Your task to perform on an android device: Open Android settings Image 0: 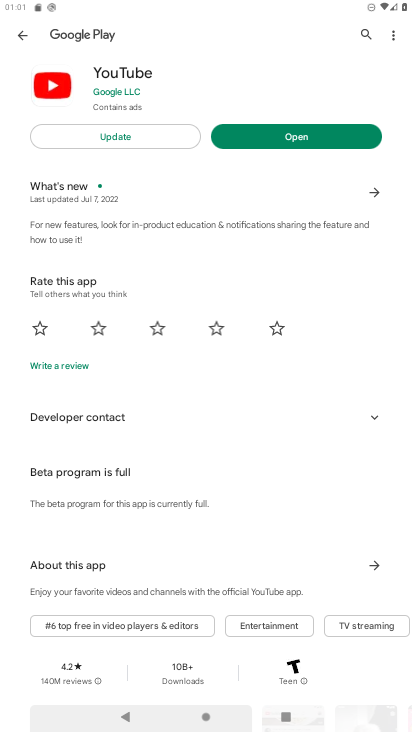
Step 0: press home button
Your task to perform on an android device: Open Android settings Image 1: 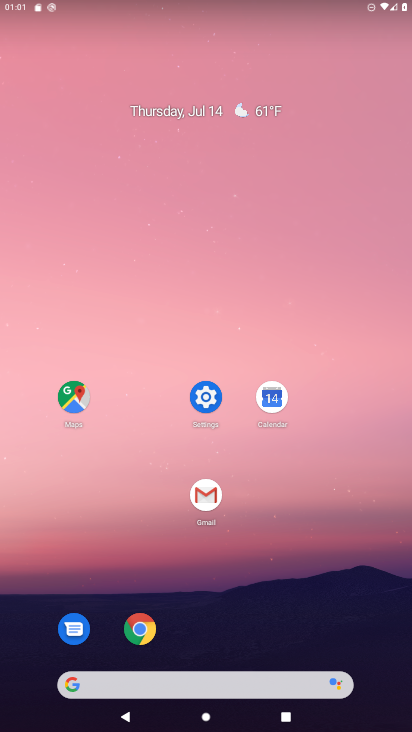
Step 1: click (200, 398)
Your task to perform on an android device: Open Android settings Image 2: 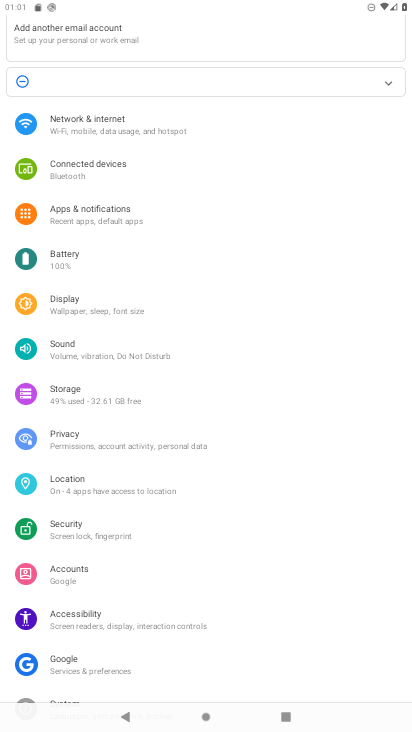
Step 2: task complete